Your task to perform on an android device: change the clock style Image 0: 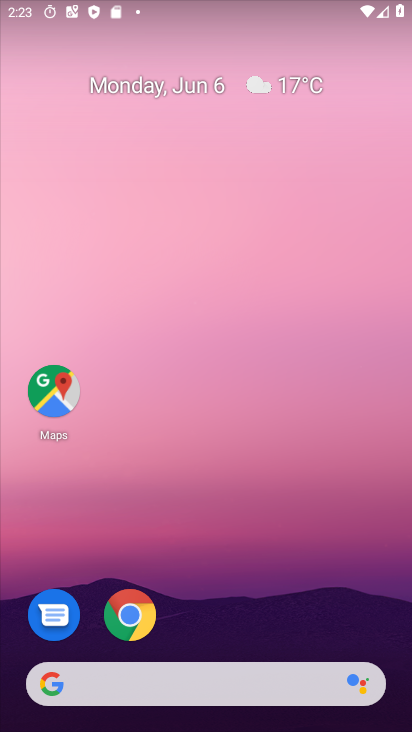
Step 0: drag from (233, 598) to (210, 169)
Your task to perform on an android device: change the clock style Image 1: 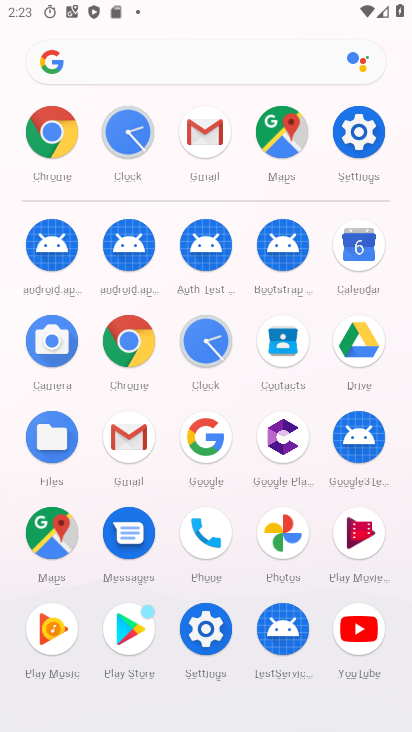
Step 1: click (208, 331)
Your task to perform on an android device: change the clock style Image 2: 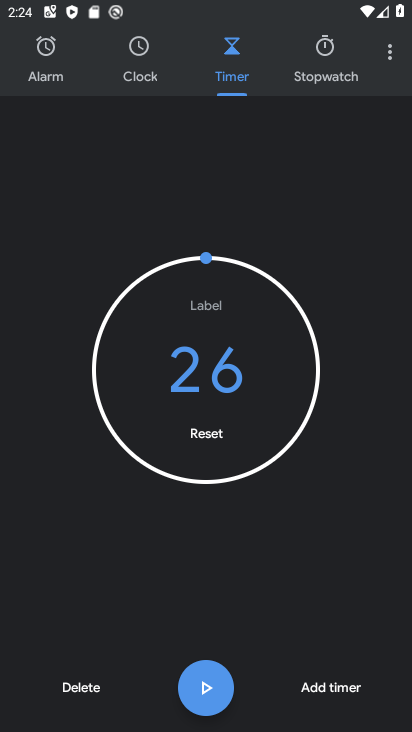
Step 2: click (389, 47)
Your task to perform on an android device: change the clock style Image 3: 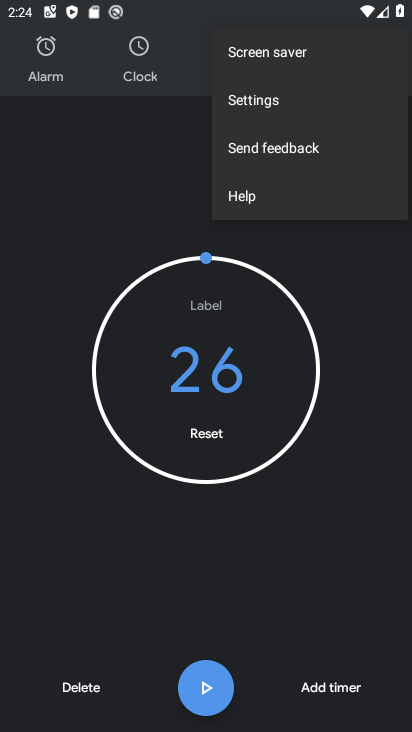
Step 3: click (266, 95)
Your task to perform on an android device: change the clock style Image 4: 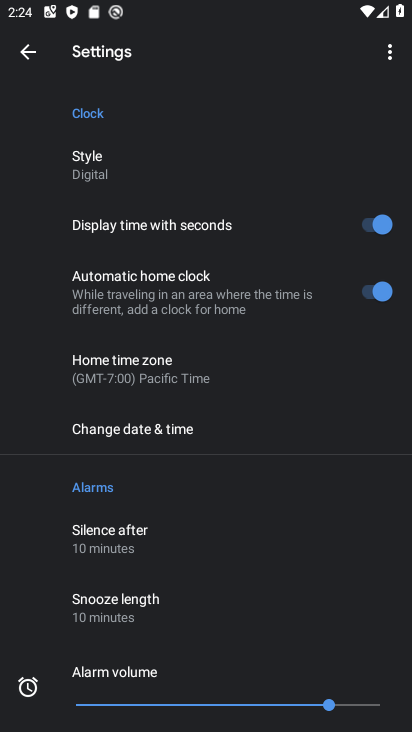
Step 4: click (121, 155)
Your task to perform on an android device: change the clock style Image 5: 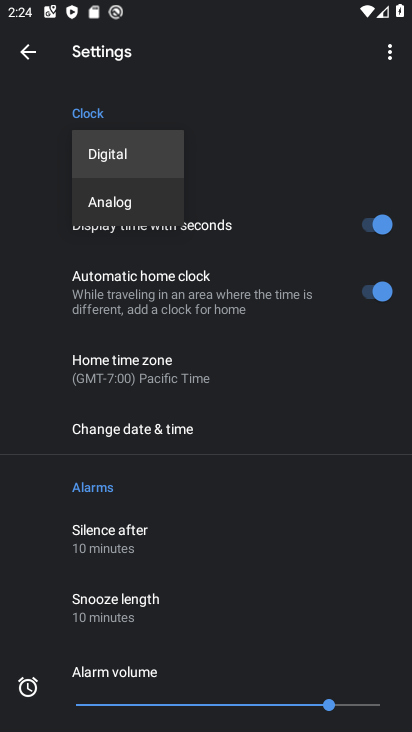
Step 5: click (150, 191)
Your task to perform on an android device: change the clock style Image 6: 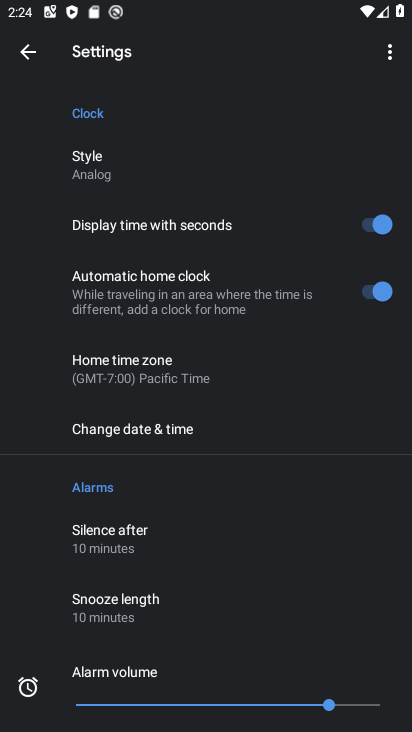
Step 6: task complete